Your task to perform on an android device: Check the news Image 0: 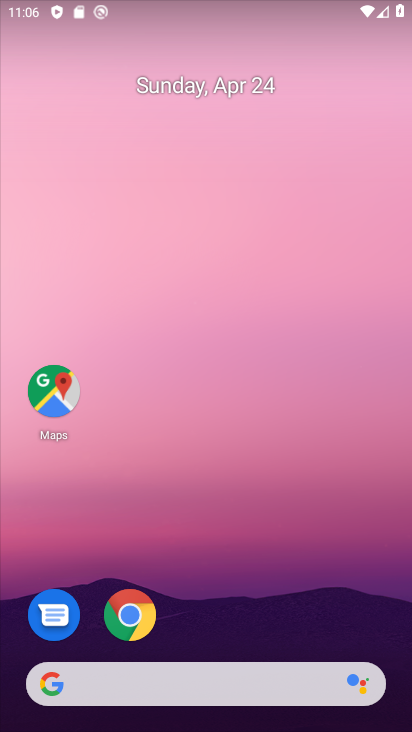
Step 0: click (148, 613)
Your task to perform on an android device: Check the news Image 1: 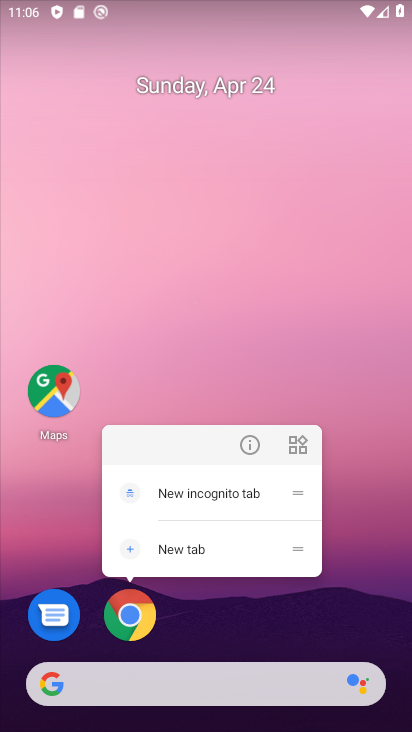
Step 1: click (148, 613)
Your task to perform on an android device: Check the news Image 2: 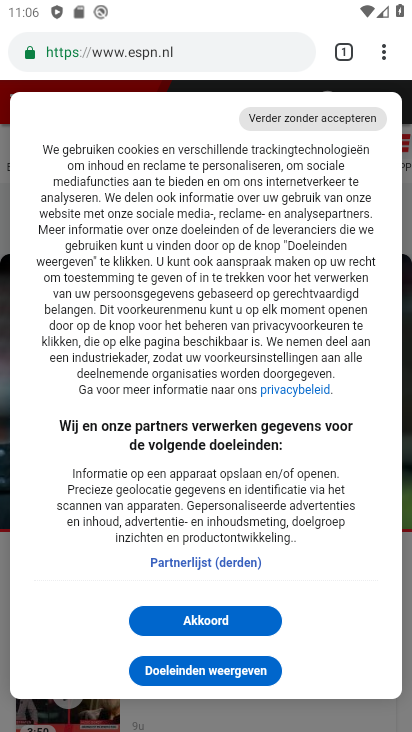
Step 2: click (388, 50)
Your task to perform on an android device: Check the news Image 3: 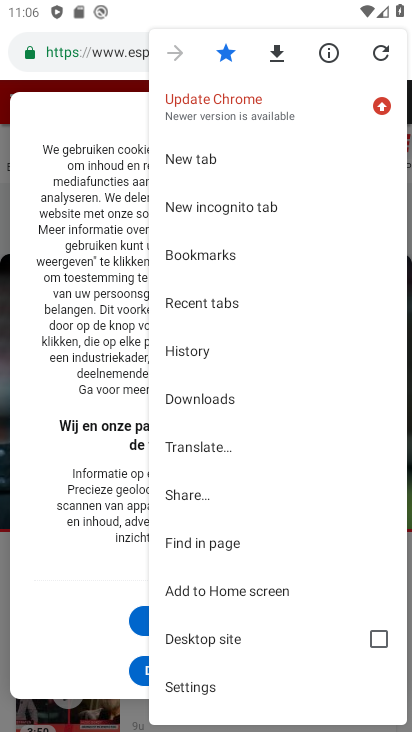
Step 3: click (180, 167)
Your task to perform on an android device: Check the news Image 4: 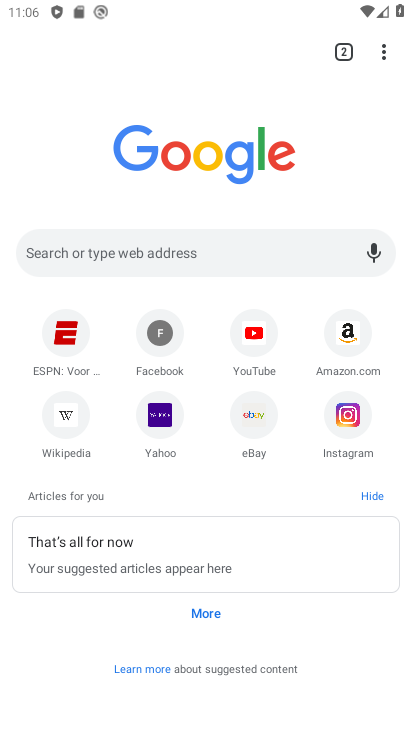
Step 4: click (209, 617)
Your task to perform on an android device: Check the news Image 5: 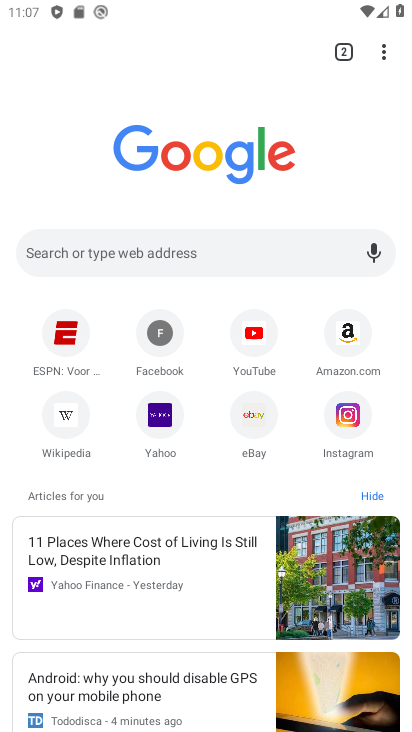
Step 5: task complete